Your task to perform on an android device: Search for vegetarian restaurants on Maps Image 0: 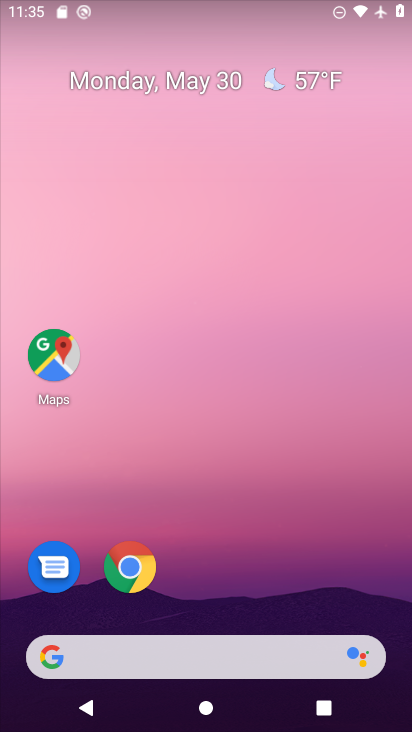
Step 0: click (75, 377)
Your task to perform on an android device: Search for vegetarian restaurants on Maps Image 1: 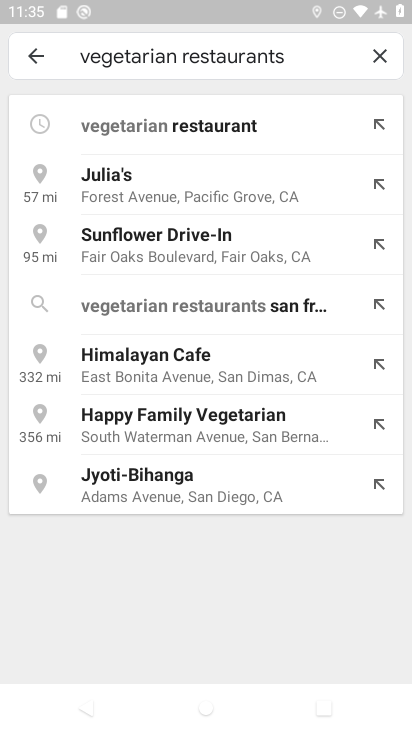
Step 1: click (229, 128)
Your task to perform on an android device: Search for vegetarian restaurants on Maps Image 2: 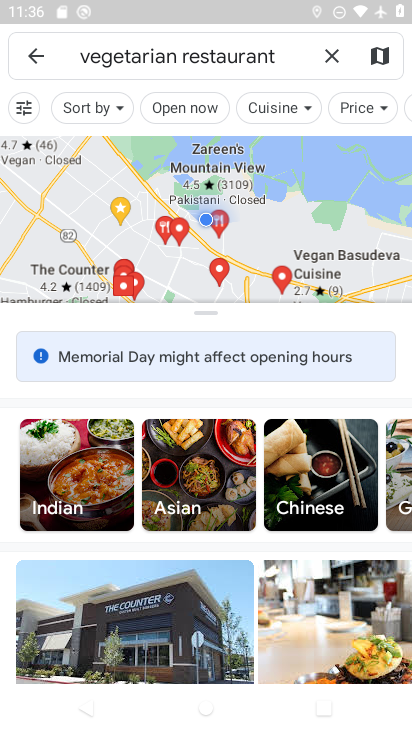
Step 2: task complete